Your task to perform on an android device: install app "McDonald's" Image 0: 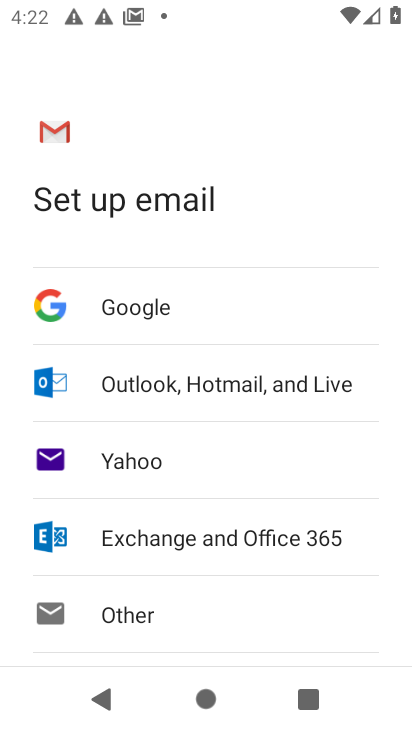
Step 0: press home button
Your task to perform on an android device: install app "McDonald's" Image 1: 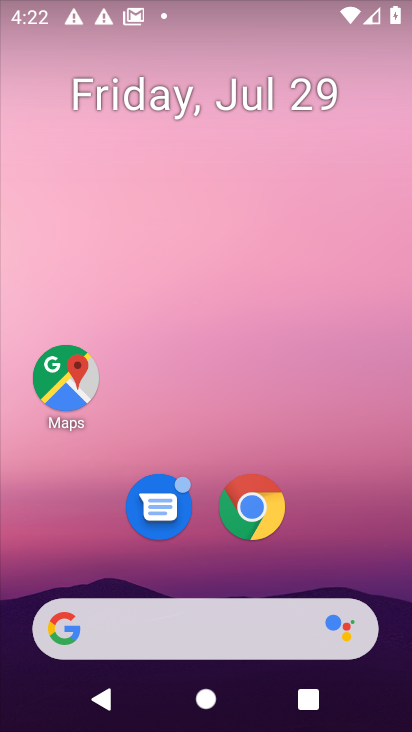
Step 1: drag from (339, 559) to (353, 4)
Your task to perform on an android device: install app "McDonald's" Image 2: 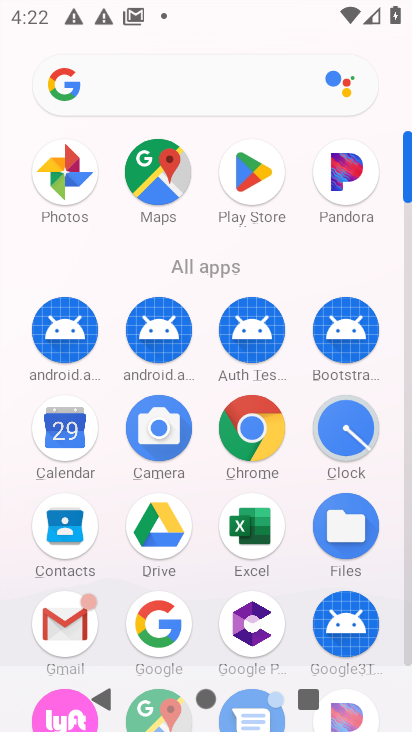
Step 2: click (251, 175)
Your task to perform on an android device: install app "McDonald's" Image 3: 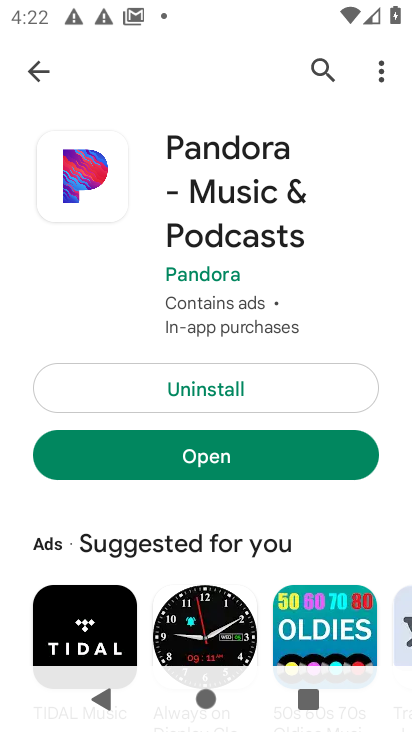
Step 3: click (311, 73)
Your task to perform on an android device: install app "McDonald's" Image 4: 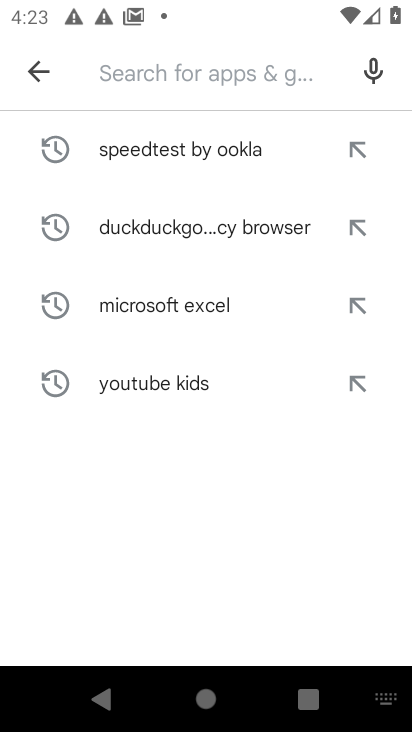
Step 4: type "McDonald's"
Your task to perform on an android device: install app "McDonald's" Image 5: 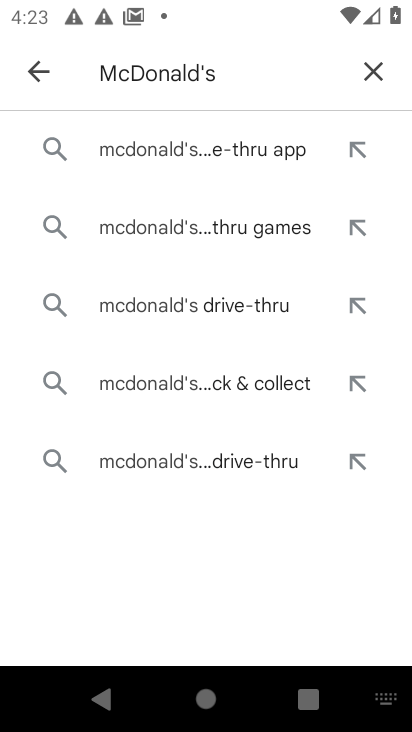
Step 5: click (188, 154)
Your task to perform on an android device: install app "McDonald's" Image 6: 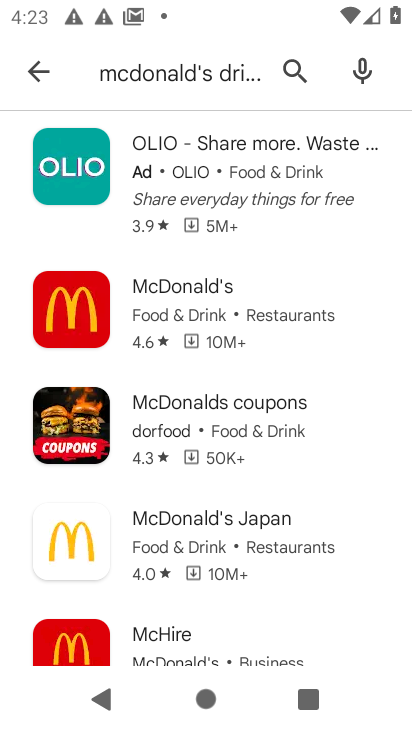
Step 6: click (127, 309)
Your task to perform on an android device: install app "McDonald's" Image 7: 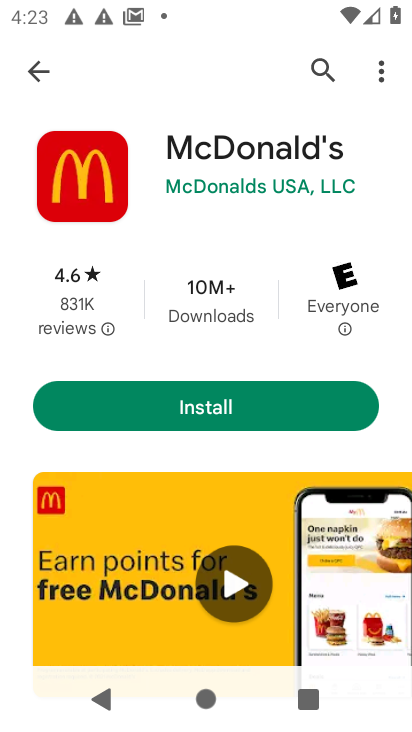
Step 7: click (167, 399)
Your task to perform on an android device: install app "McDonald's" Image 8: 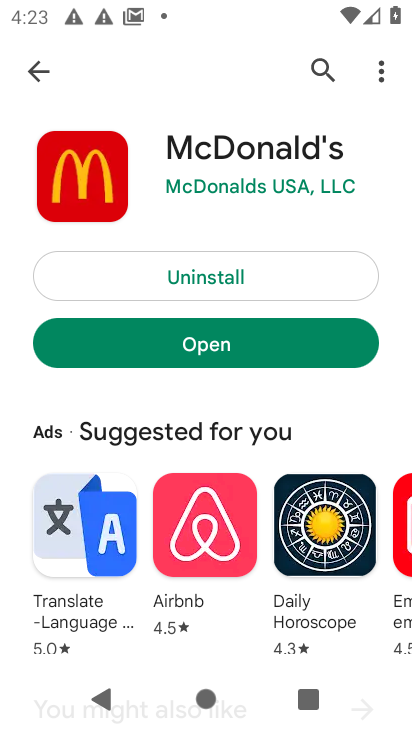
Step 8: task complete